Your task to perform on an android device: Open internet settings Image 0: 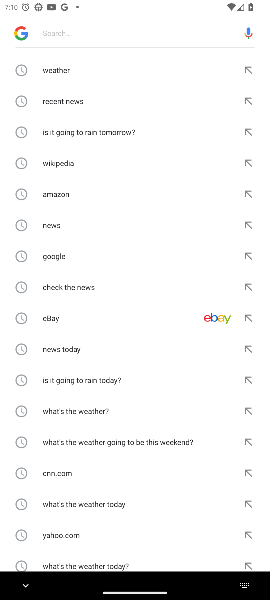
Step 0: press home button
Your task to perform on an android device: Open internet settings Image 1: 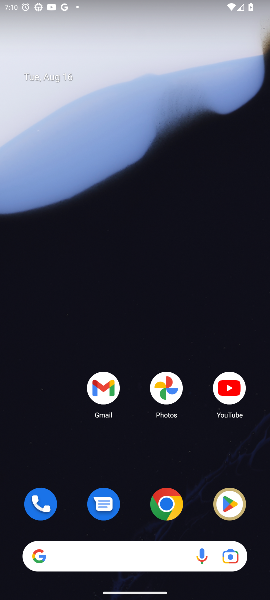
Step 1: drag from (13, 582) to (165, 67)
Your task to perform on an android device: Open internet settings Image 2: 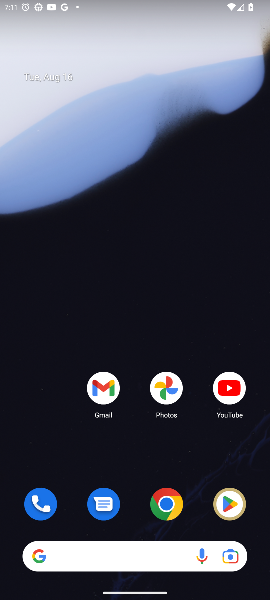
Step 2: drag from (17, 560) to (161, 97)
Your task to perform on an android device: Open internet settings Image 3: 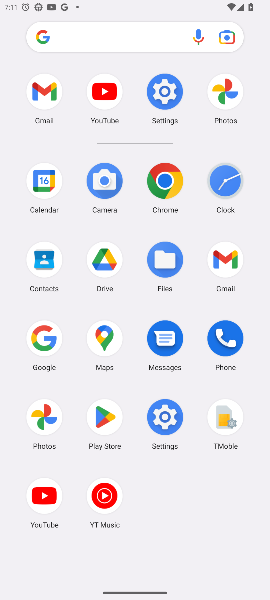
Step 3: click (178, 427)
Your task to perform on an android device: Open internet settings Image 4: 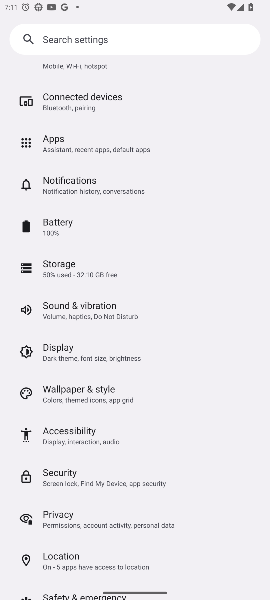
Step 4: drag from (192, 127) to (210, 530)
Your task to perform on an android device: Open internet settings Image 5: 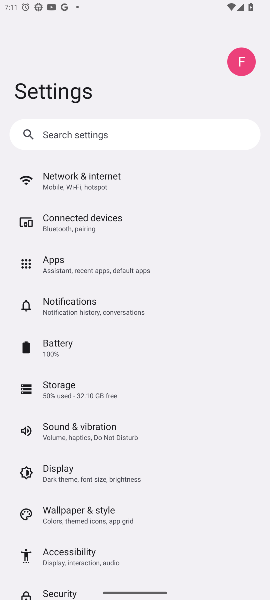
Step 5: click (90, 175)
Your task to perform on an android device: Open internet settings Image 6: 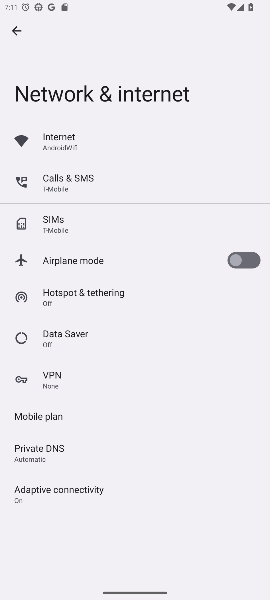
Step 6: task complete